Your task to perform on an android device: Do I have any events this weekend? Image 0: 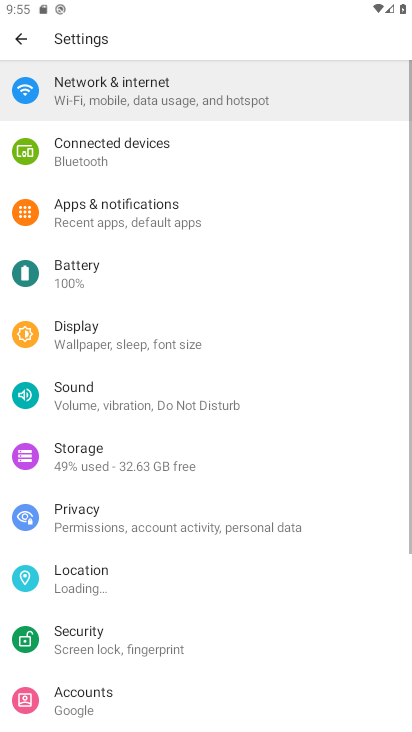
Step 0: press home button
Your task to perform on an android device: Do I have any events this weekend? Image 1: 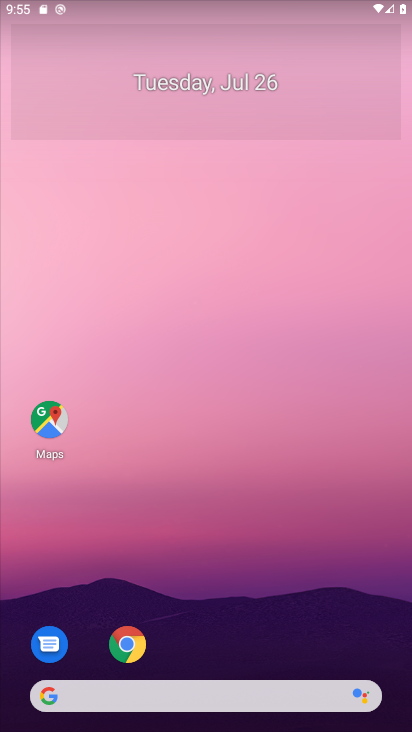
Step 1: drag from (244, 665) to (161, 17)
Your task to perform on an android device: Do I have any events this weekend? Image 2: 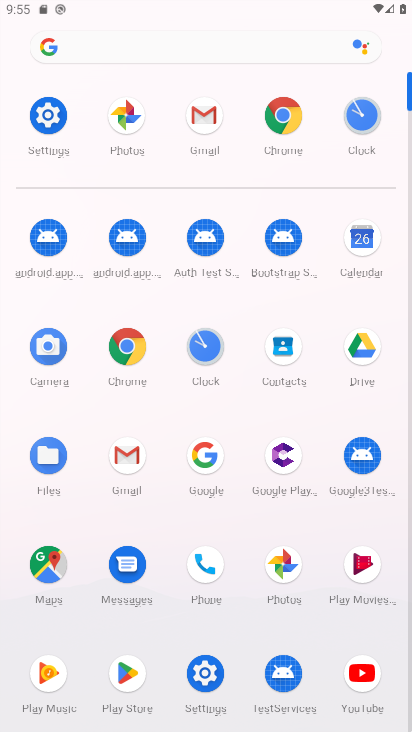
Step 2: click (372, 250)
Your task to perform on an android device: Do I have any events this weekend? Image 3: 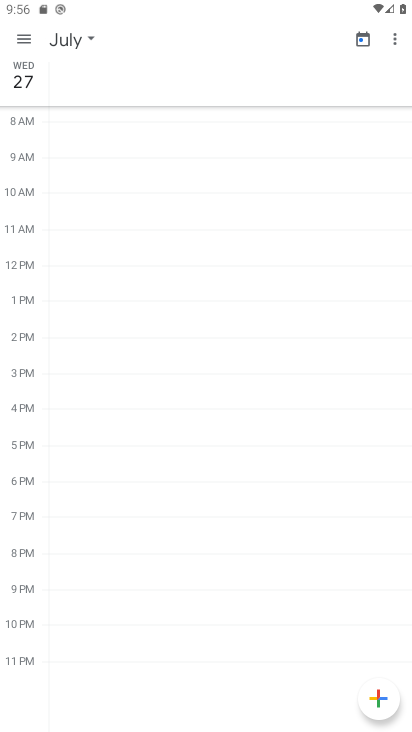
Step 3: click (32, 46)
Your task to perform on an android device: Do I have any events this weekend? Image 4: 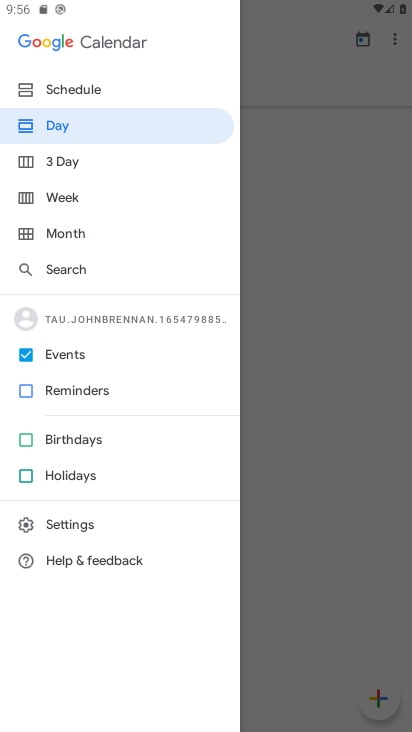
Step 4: click (73, 194)
Your task to perform on an android device: Do I have any events this weekend? Image 5: 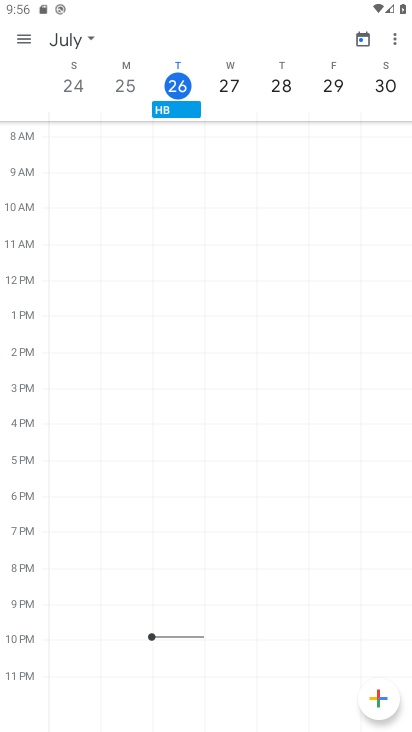
Step 5: task complete